Your task to perform on an android device: Go to Android settings Image 0: 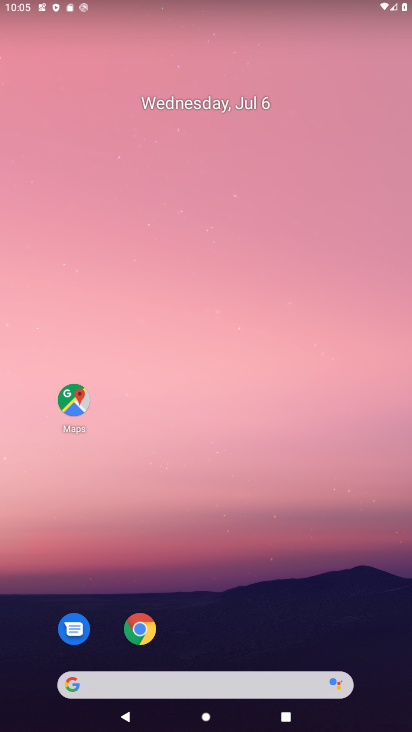
Step 0: drag from (195, 644) to (193, 157)
Your task to perform on an android device: Go to Android settings Image 1: 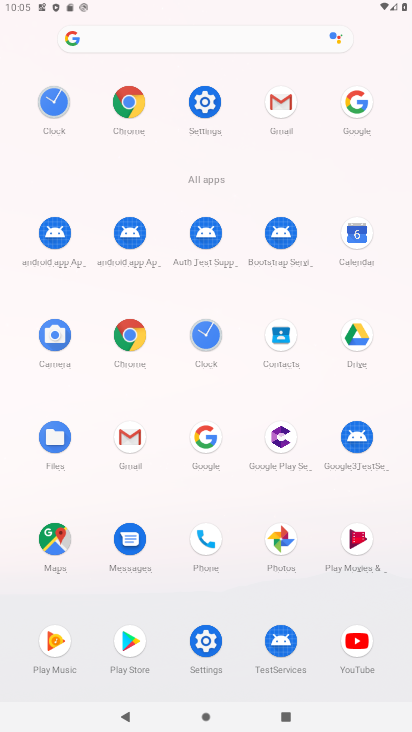
Step 1: click (204, 94)
Your task to perform on an android device: Go to Android settings Image 2: 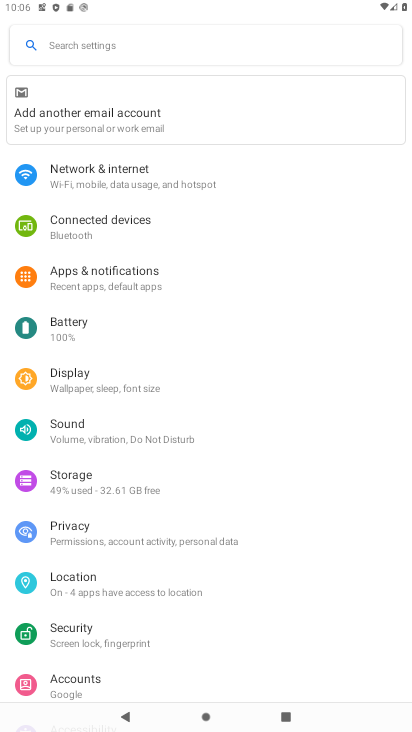
Step 2: task complete